Your task to perform on an android device: see tabs open on other devices in the chrome app Image 0: 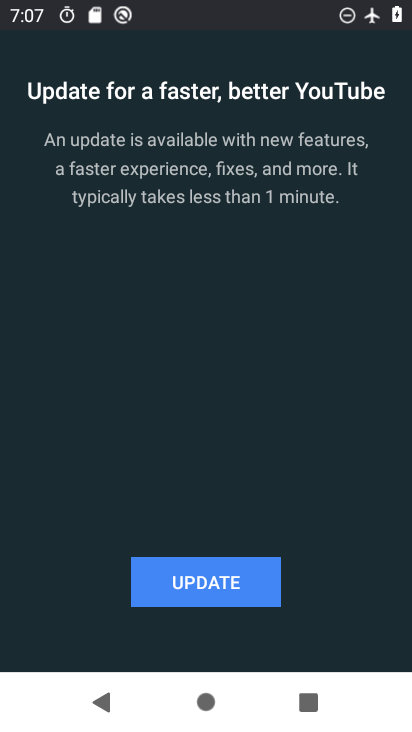
Step 0: press home button
Your task to perform on an android device: see tabs open on other devices in the chrome app Image 1: 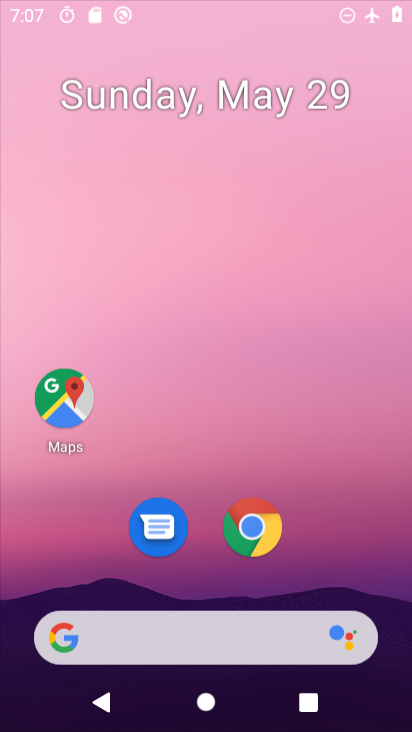
Step 1: drag from (350, 622) to (251, 39)
Your task to perform on an android device: see tabs open on other devices in the chrome app Image 2: 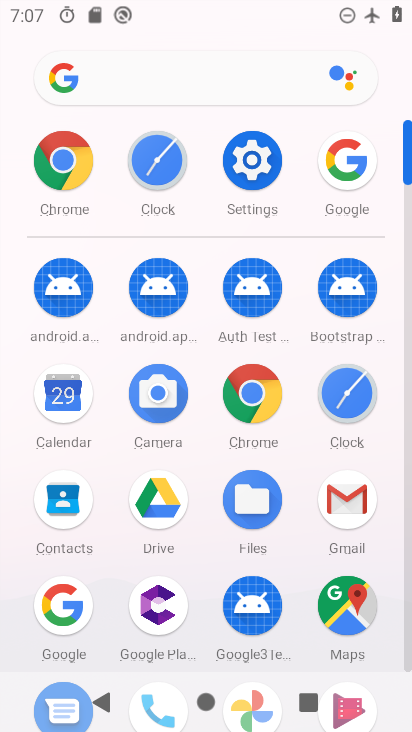
Step 2: click (267, 379)
Your task to perform on an android device: see tabs open on other devices in the chrome app Image 3: 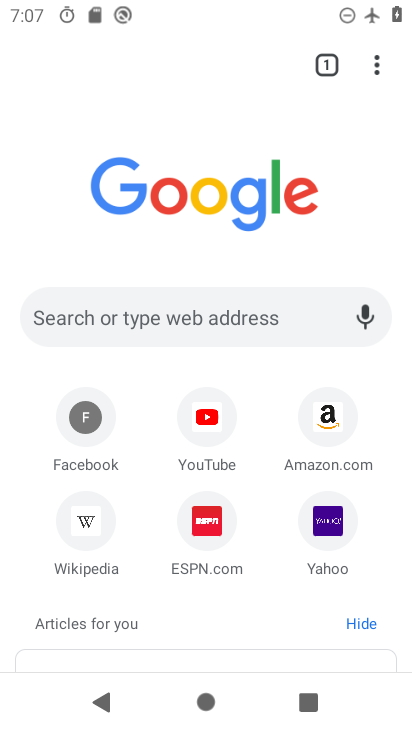
Step 3: task complete